Your task to perform on an android device: check android version Image 0: 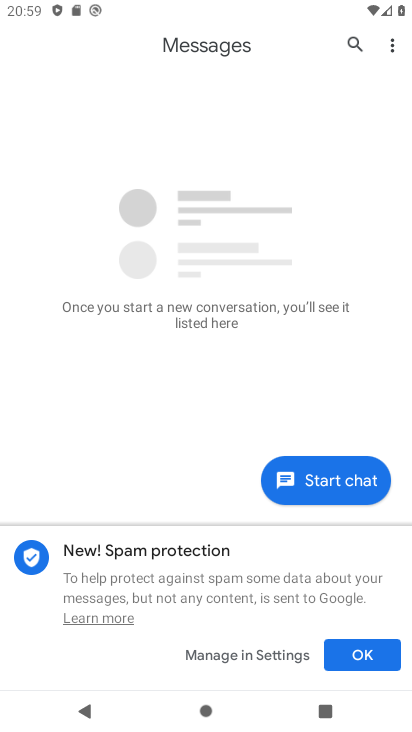
Step 0: press home button
Your task to perform on an android device: check android version Image 1: 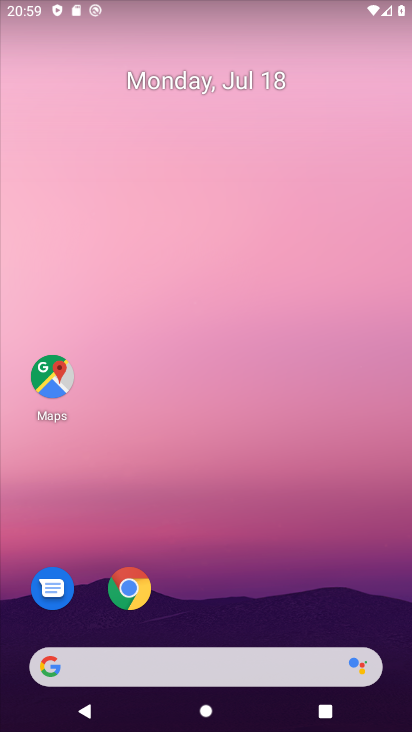
Step 1: drag from (320, 625) to (328, 114)
Your task to perform on an android device: check android version Image 2: 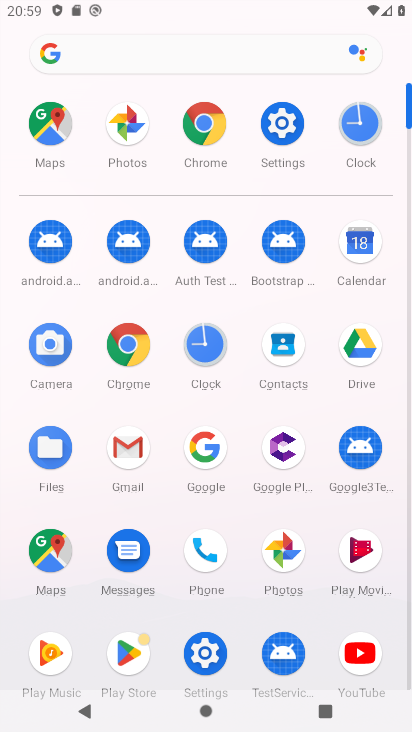
Step 2: click (281, 123)
Your task to perform on an android device: check android version Image 3: 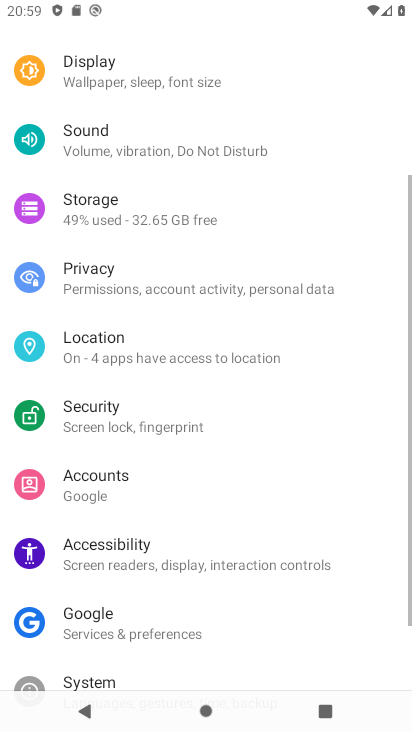
Step 3: drag from (281, 123) to (298, 608)
Your task to perform on an android device: check android version Image 4: 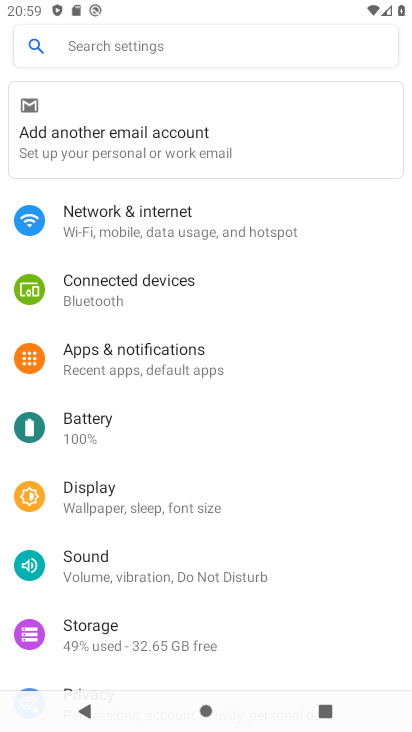
Step 4: drag from (207, 607) to (190, 16)
Your task to perform on an android device: check android version Image 5: 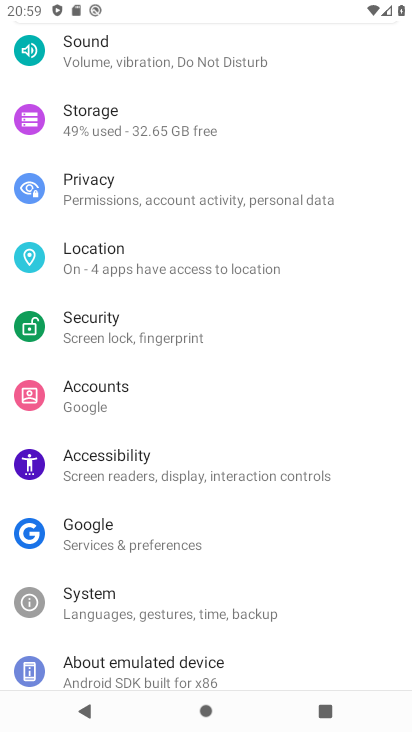
Step 5: click (186, 661)
Your task to perform on an android device: check android version Image 6: 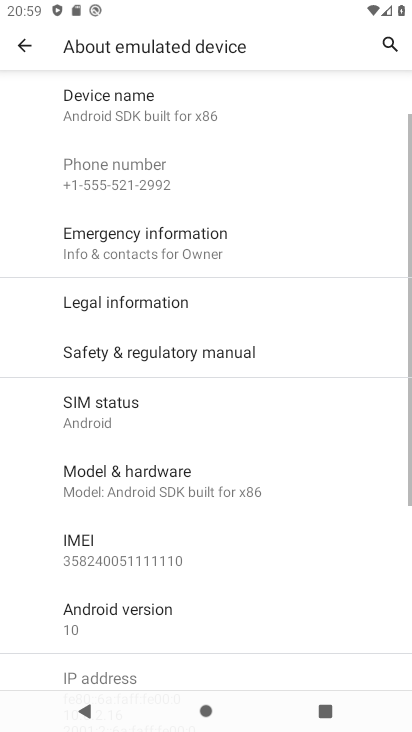
Step 6: click (124, 614)
Your task to perform on an android device: check android version Image 7: 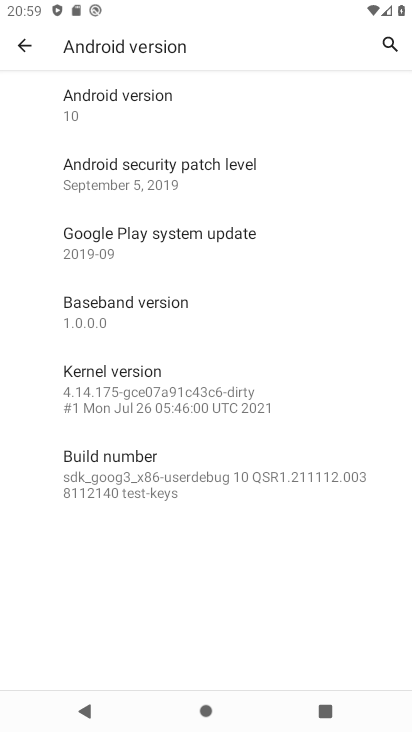
Step 7: task complete